Your task to perform on an android device: clear all cookies in the chrome app Image 0: 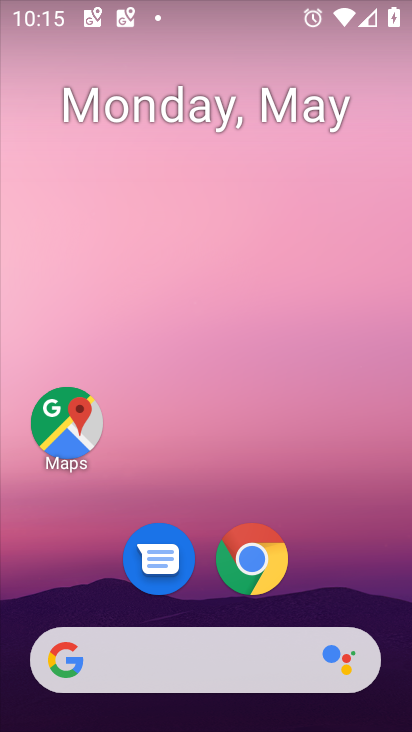
Step 0: drag from (381, 637) to (270, 2)
Your task to perform on an android device: clear all cookies in the chrome app Image 1: 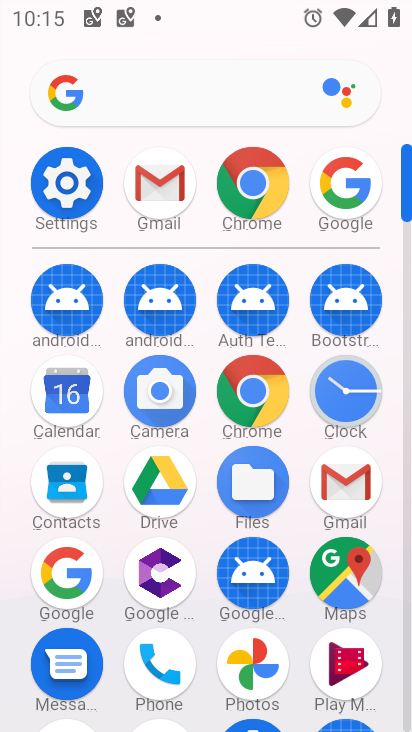
Step 1: click (257, 391)
Your task to perform on an android device: clear all cookies in the chrome app Image 2: 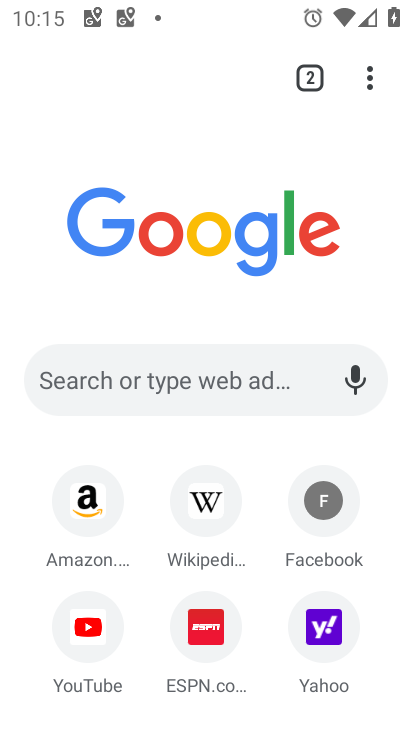
Step 2: click (363, 68)
Your task to perform on an android device: clear all cookies in the chrome app Image 3: 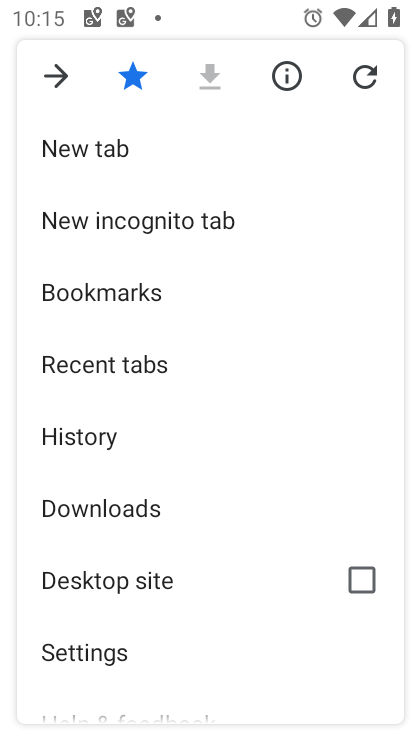
Step 3: click (94, 648)
Your task to perform on an android device: clear all cookies in the chrome app Image 4: 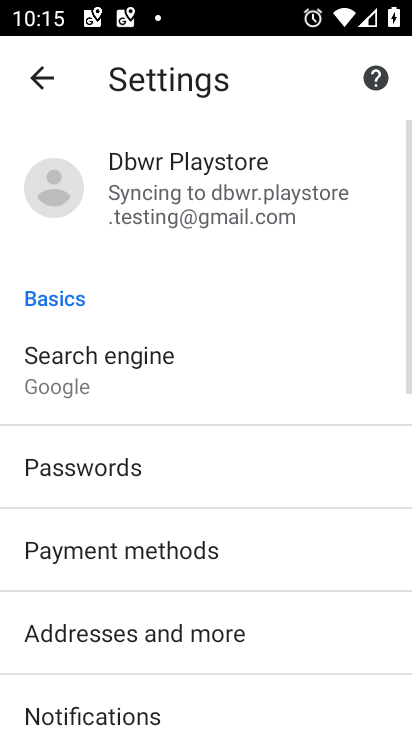
Step 4: press back button
Your task to perform on an android device: clear all cookies in the chrome app Image 5: 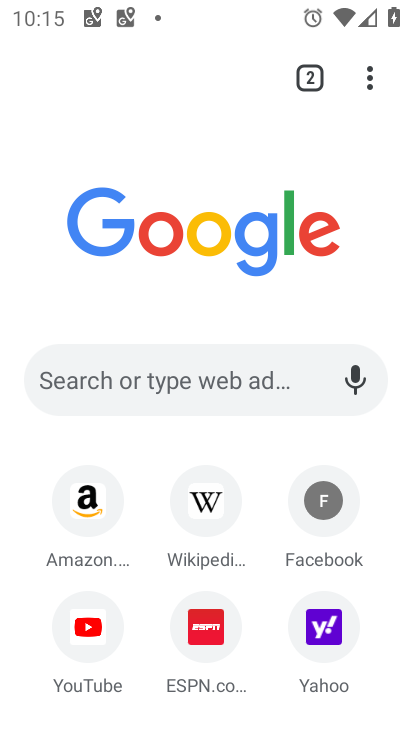
Step 5: click (369, 69)
Your task to perform on an android device: clear all cookies in the chrome app Image 6: 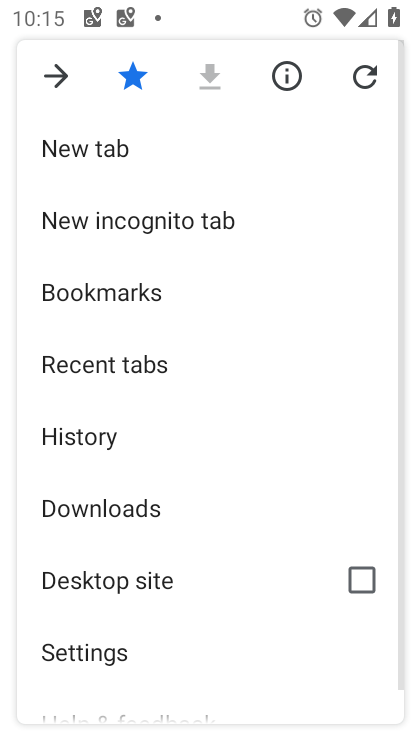
Step 6: click (80, 430)
Your task to perform on an android device: clear all cookies in the chrome app Image 7: 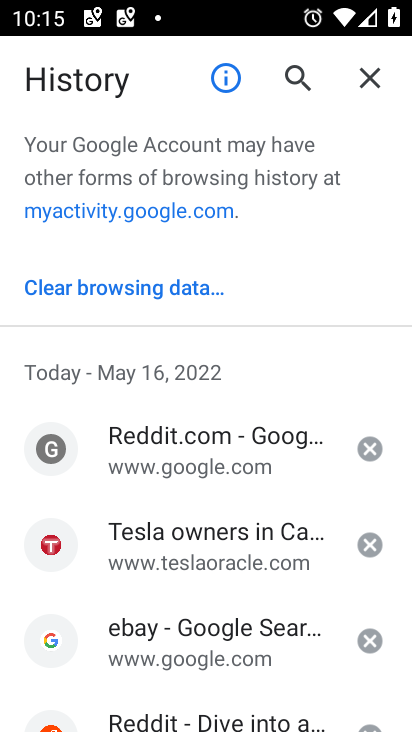
Step 7: click (132, 294)
Your task to perform on an android device: clear all cookies in the chrome app Image 8: 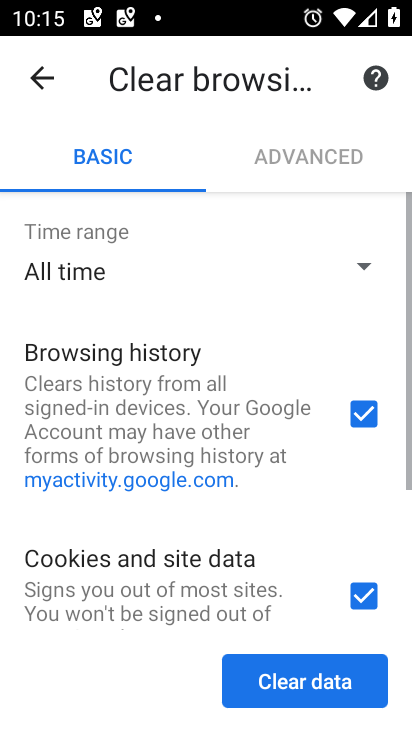
Step 8: click (294, 708)
Your task to perform on an android device: clear all cookies in the chrome app Image 9: 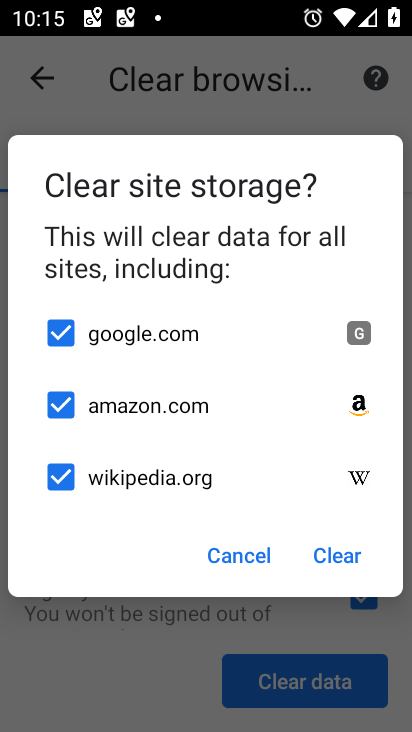
Step 9: click (336, 555)
Your task to perform on an android device: clear all cookies in the chrome app Image 10: 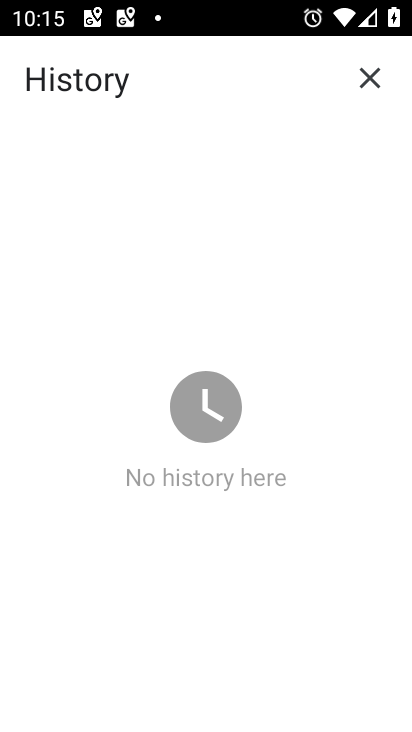
Step 10: task complete